Your task to perform on an android device: Search for Mexican restaurants on Maps Image 0: 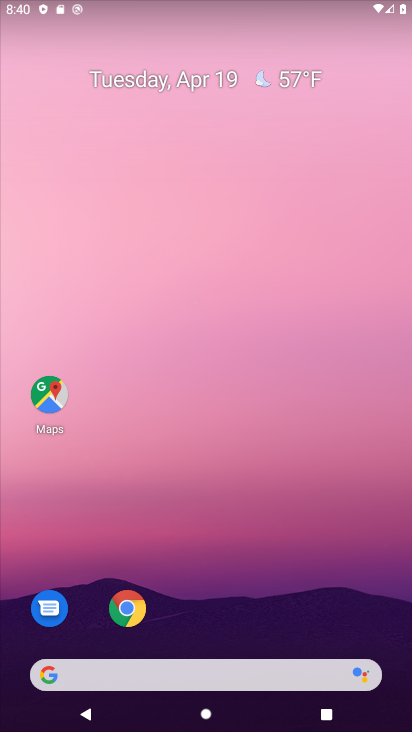
Step 0: click (47, 392)
Your task to perform on an android device: Search for Mexican restaurants on Maps Image 1: 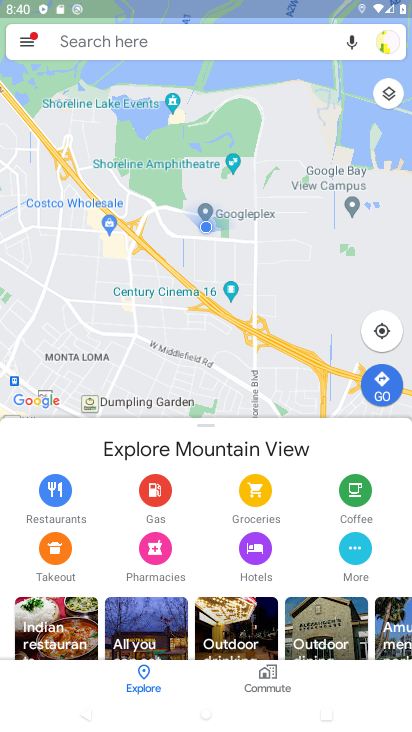
Step 1: click (191, 42)
Your task to perform on an android device: Search for Mexican restaurants on Maps Image 2: 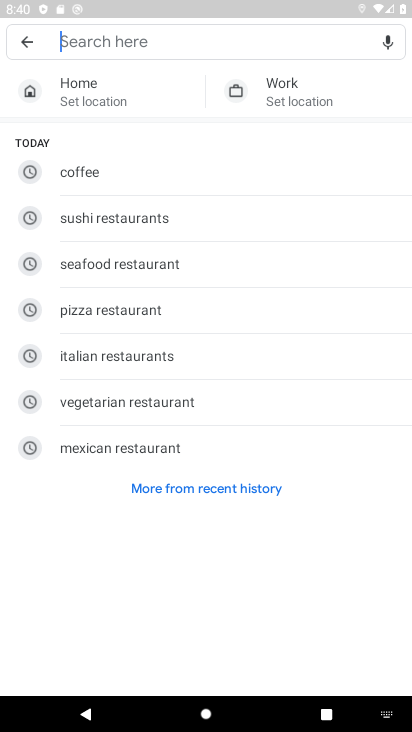
Step 2: click (125, 447)
Your task to perform on an android device: Search for Mexican restaurants on Maps Image 3: 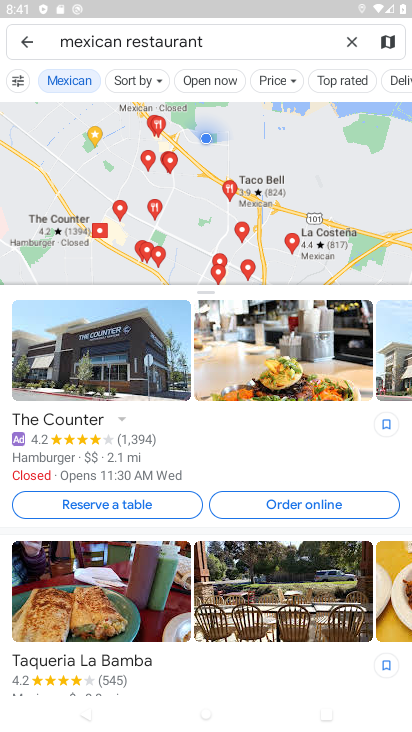
Step 3: task complete